Your task to perform on an android device: check data usage Image 0: 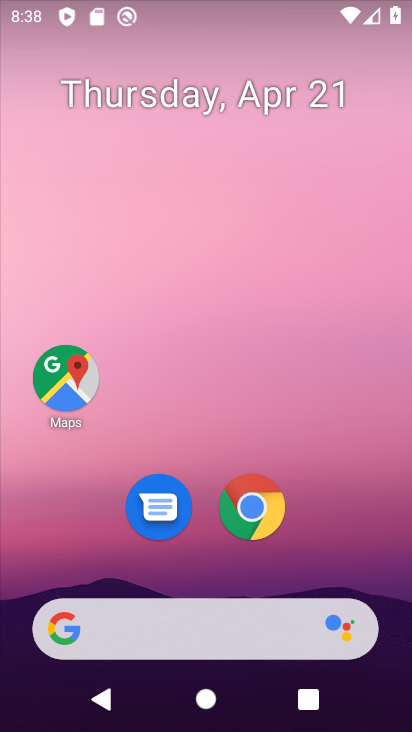
Step 0: drag from (355, 543) to (363, 146)
Your task to perform on an android device: check data usage Image 1: 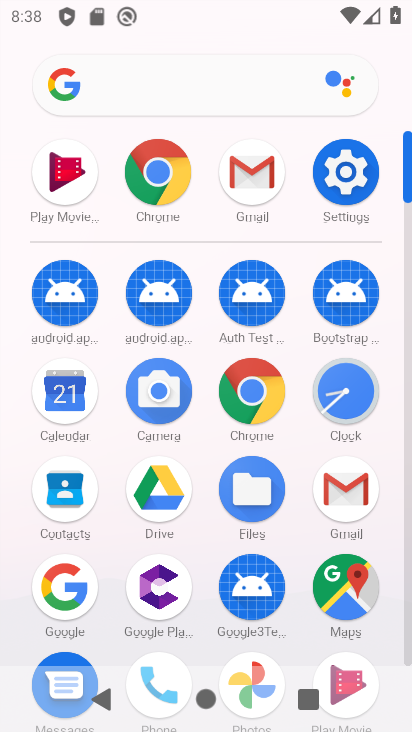
Step 1: click (359, 171)
Your task to perform on an android device: check data usage Image 2: 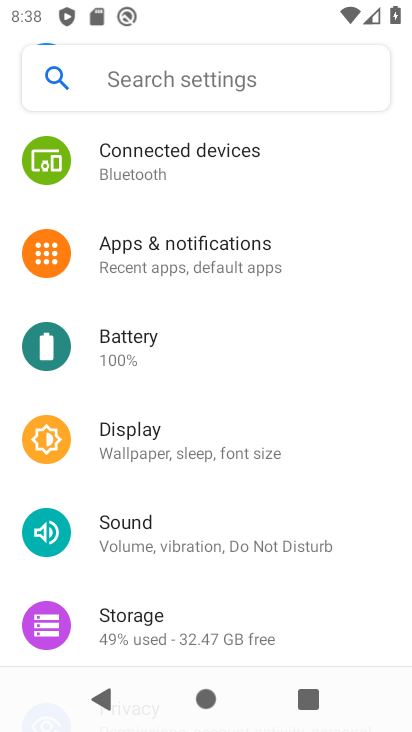
Step 2: drag from (346, 211) to (327, 475)
Your task to perform on an android device: check data usage Image 3: 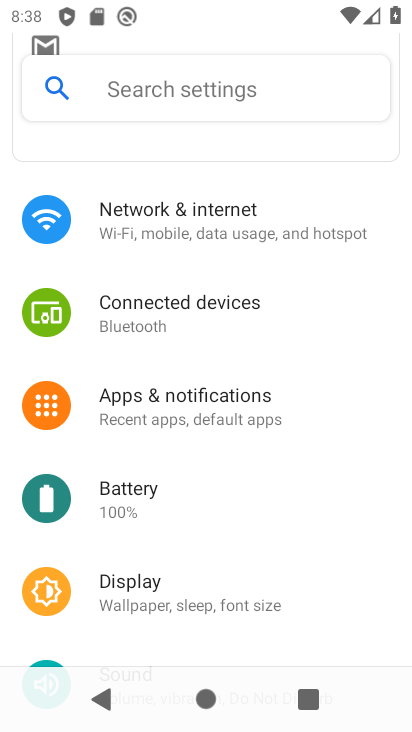
Step 3: click (273, 237)
Your task to perform on an android device: check data usage Image 4: 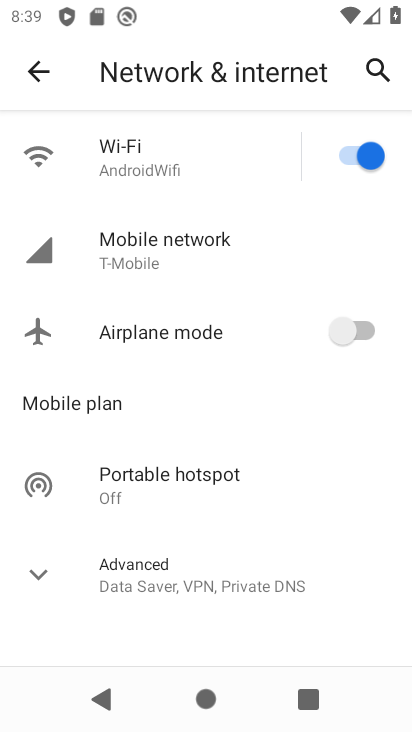
Step 4: click (222, 259)
Your task to perform on an android device: check data usage Image 5: 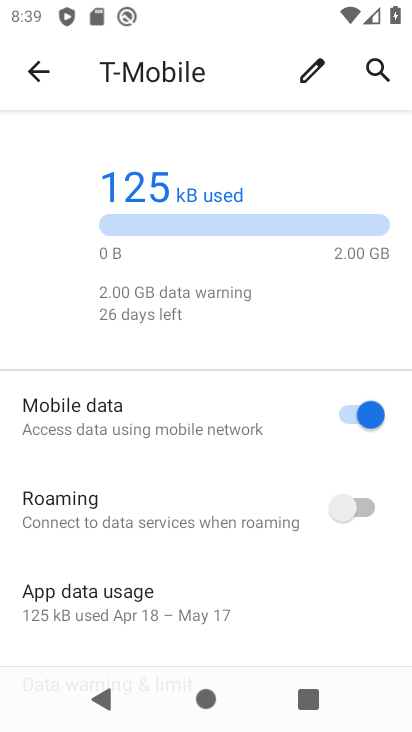
Step 5: click (137, 600)
Your task to perform on an android device: check data usage Image 6: 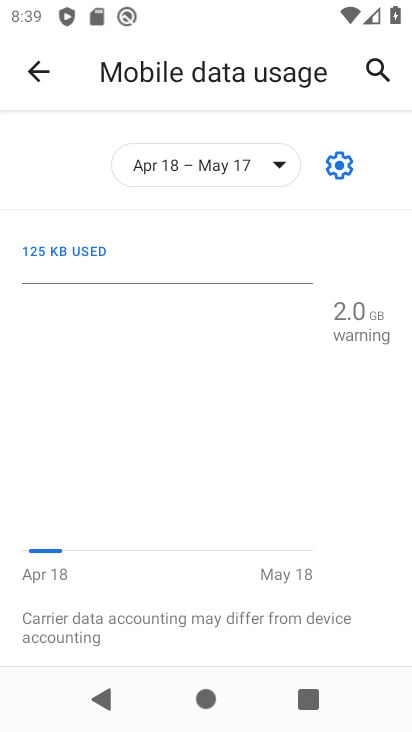
Step 6: task complete